Your task to perform on an android device: Open internet settings Image 0: 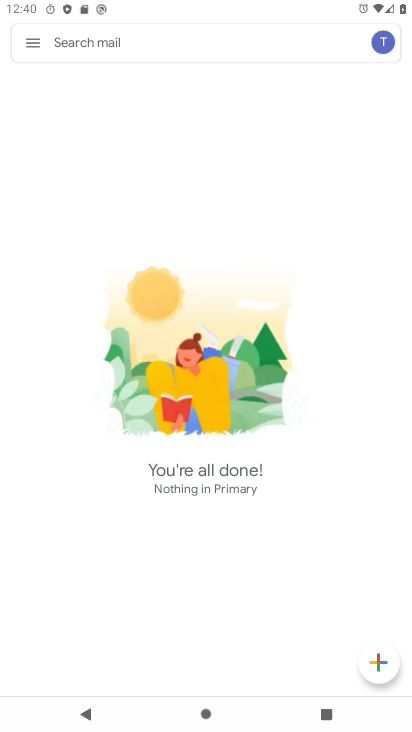
Step 0: press home button
Your task to perform on an android device: Open internet settings Image 1: 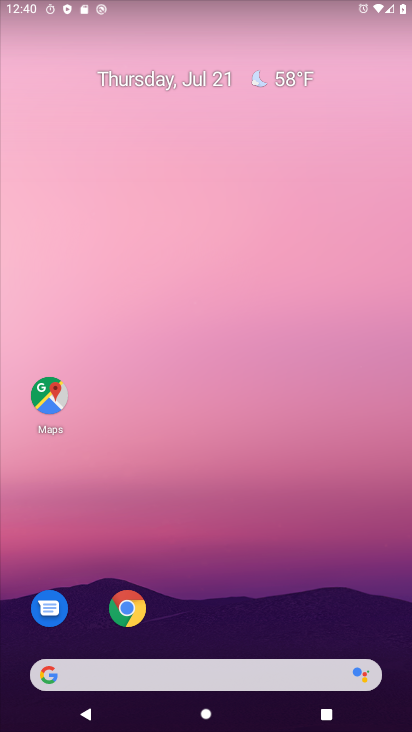
Step 1: drag from (220, 635) to (268, 6)
Your task to perform on an android device: Open internet settings Image 2: 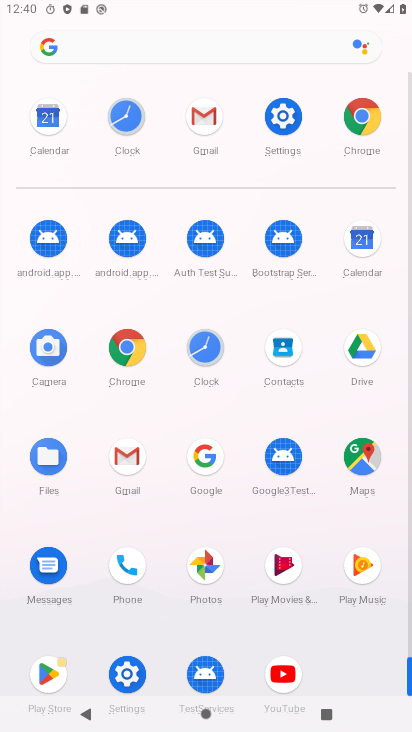
Step 2: click (282, 112)
Your task to perform on an android device: Open internet settings Image 3: 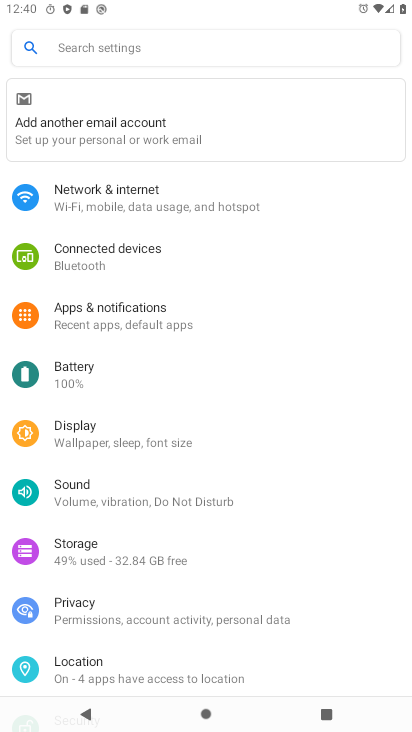
Step 3: click (167, 191)
Your task to perform on an android device: Open internet settings Image 4: 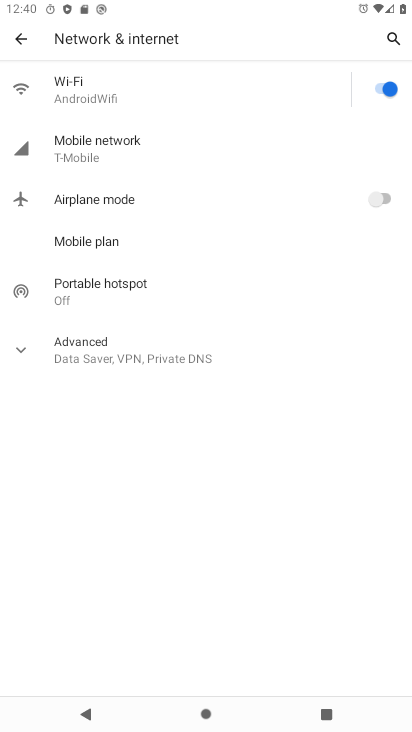
Step 4: click (29, 337)
Your task to perform on an android device: Open internet settings Image 5: 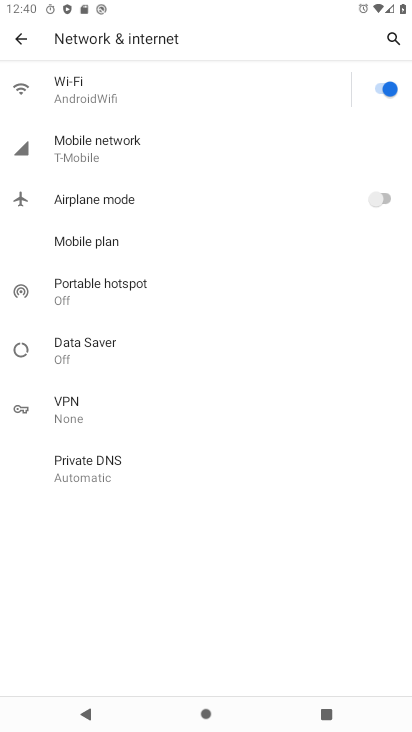
Step 5: task complete